Your task to perform on an android device: Open display settings Image 0: 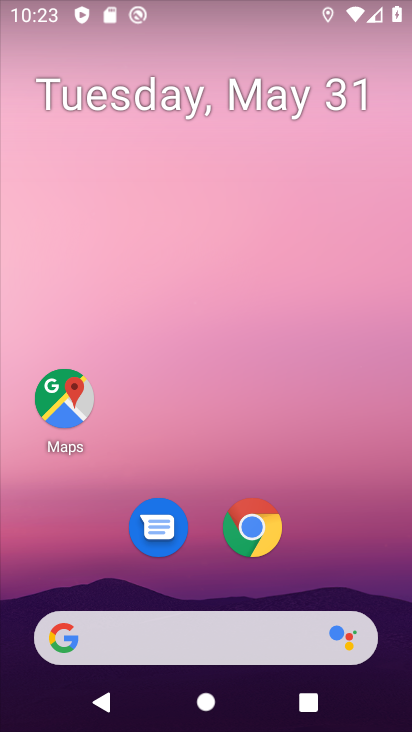
Step 0: drag from (403, 601) to (257, 90)
Your task to perform on an android device: Open display settings Image 1: 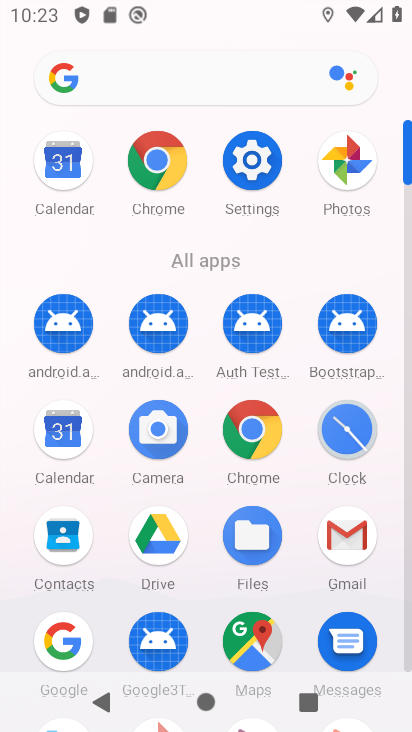
Step 1: click (256, 150)
Your task to perform on an android device: Open display settings Image 2: 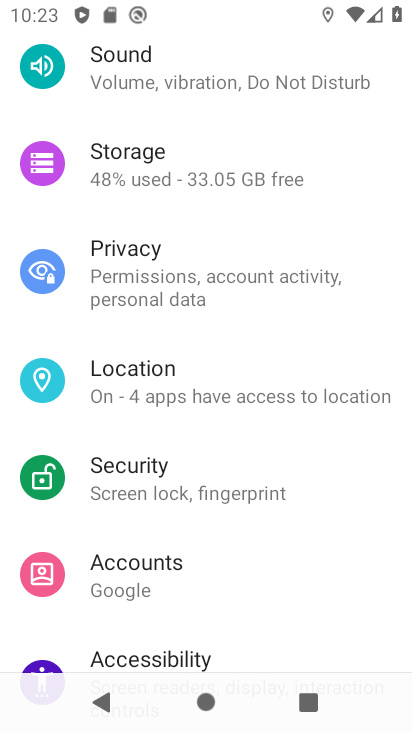
Step 2: drag from (244, 114) to (210, 562)
Your task to perform on an android device: Open display settings Image 3: 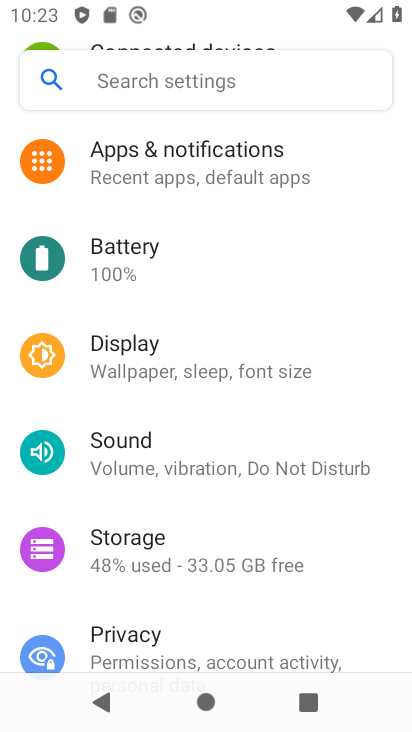
Step 3: click (212, 380)
Your task to perform on an android device: Open display settings Image 4: 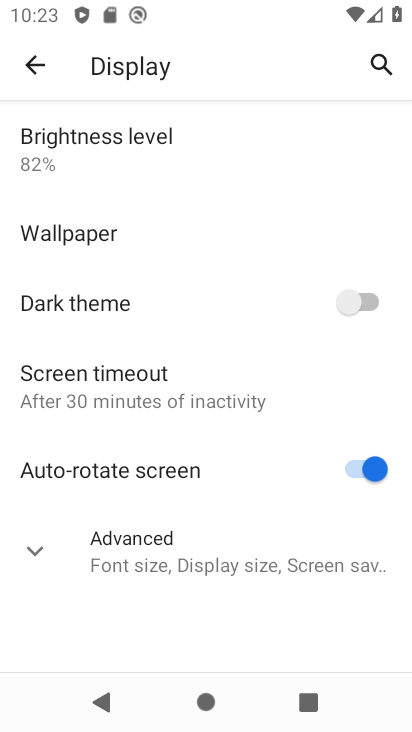
Step 4: task complete